Your task to perform on an android device: Open Chrome and go to settings Image 0: 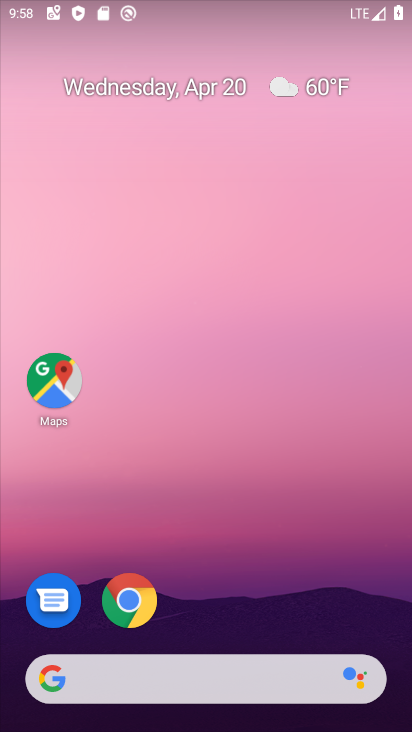
Step 0: click (134, 608)
Your task to perform on an android device: Open Chrome and go to settings Image 1: 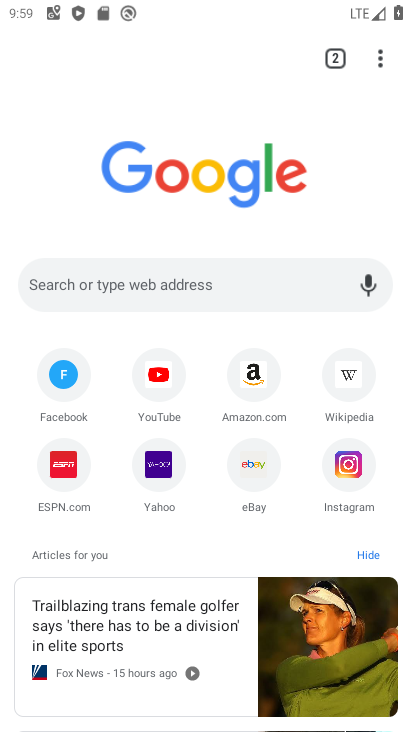
Step 1: click (391, 80)
Your task to perform on an android device: Open Chrome and go to settings Image 2: 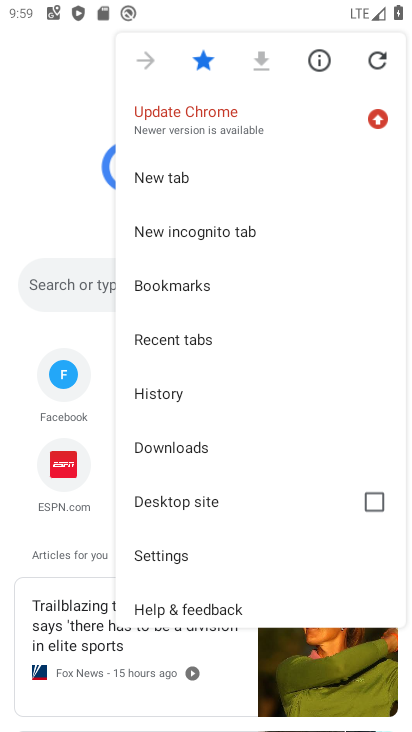
Step 2: click (195, 550)
Your task to perform on an android device: Open Chrome and go to settings Image 3: 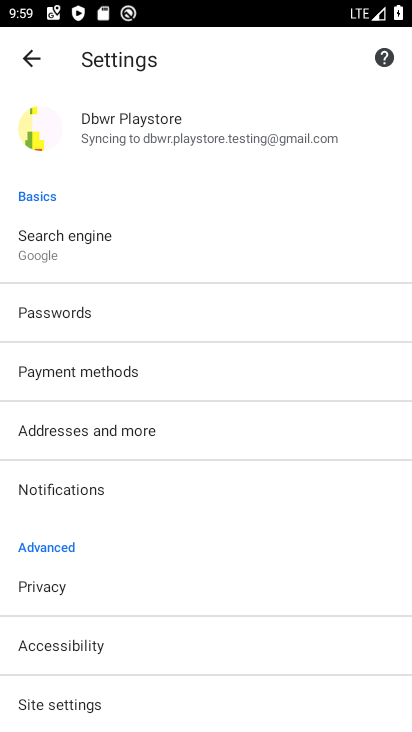
Step 3: task complete